Your task to perform on an android device: turn on improve location accuracy Image 0: 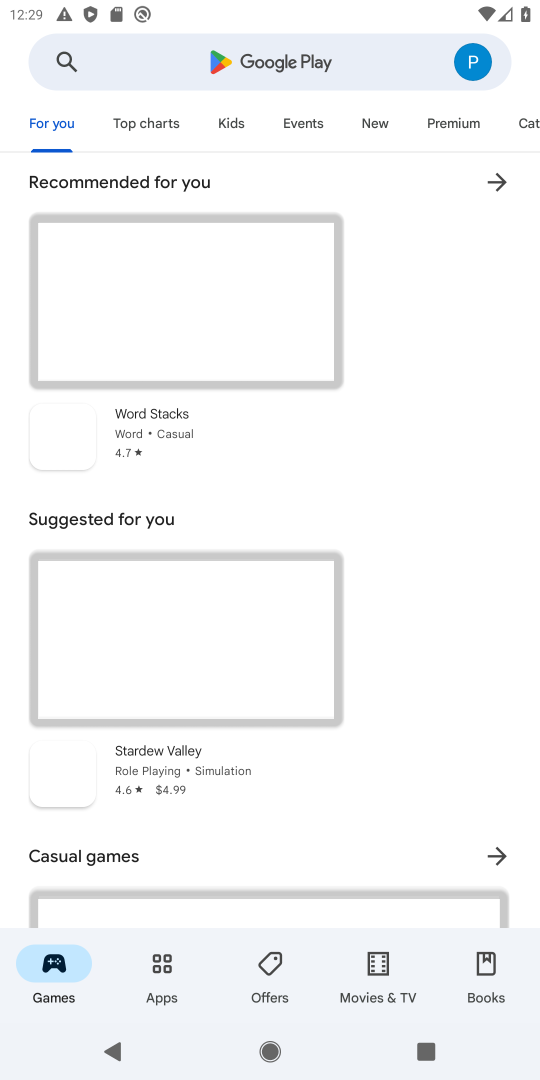
Step 0: press home button
Your task to perform on an android device: turn on improve location accuracy Image 1: 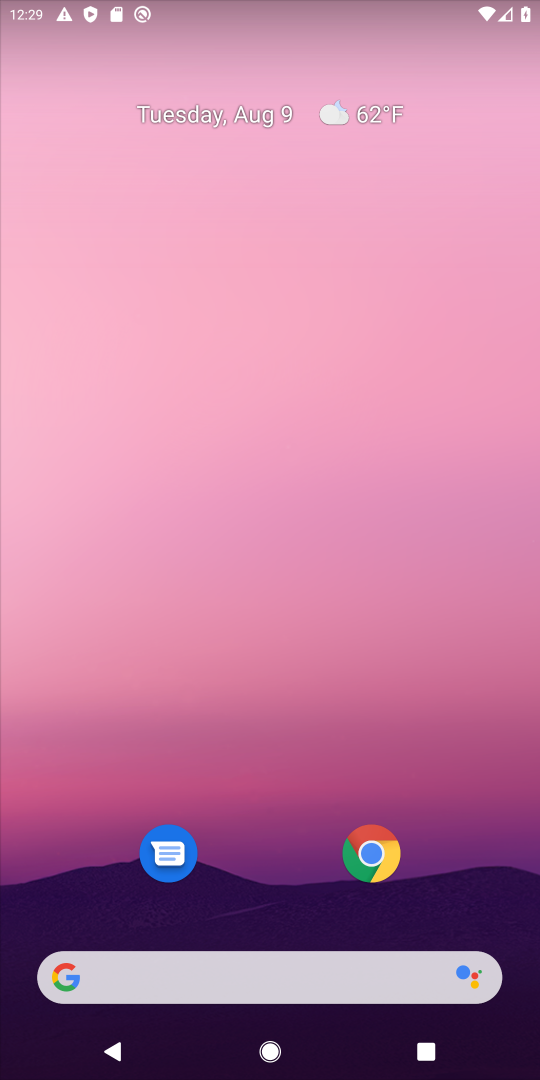
Step 1: press home button
Your task to perform on an android device: turn on improve location accuracy Image 2: 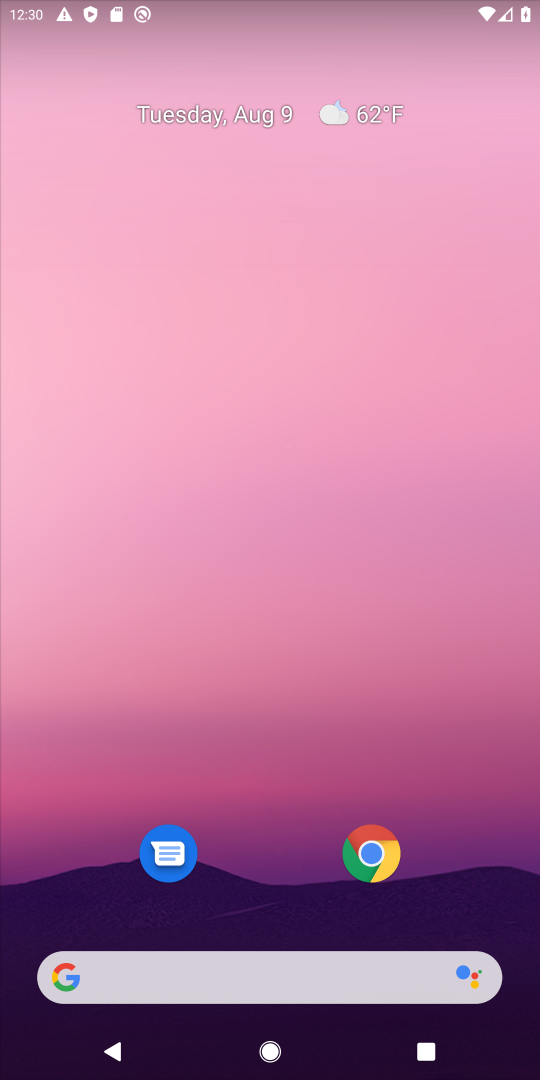
Step 2: drag from (273, 862) to (299, 25)
Your task to perform on an android device: turn on improve location accuracy Image 3: 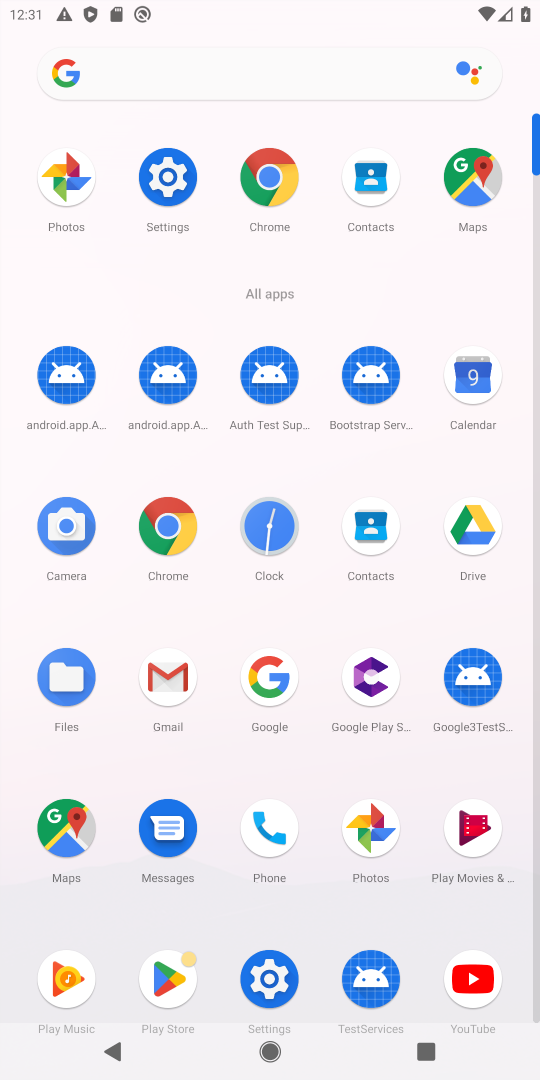
Step 3: click (174, 164)
Your task to perform on an android device: turn on improve location accuracy Image 4: 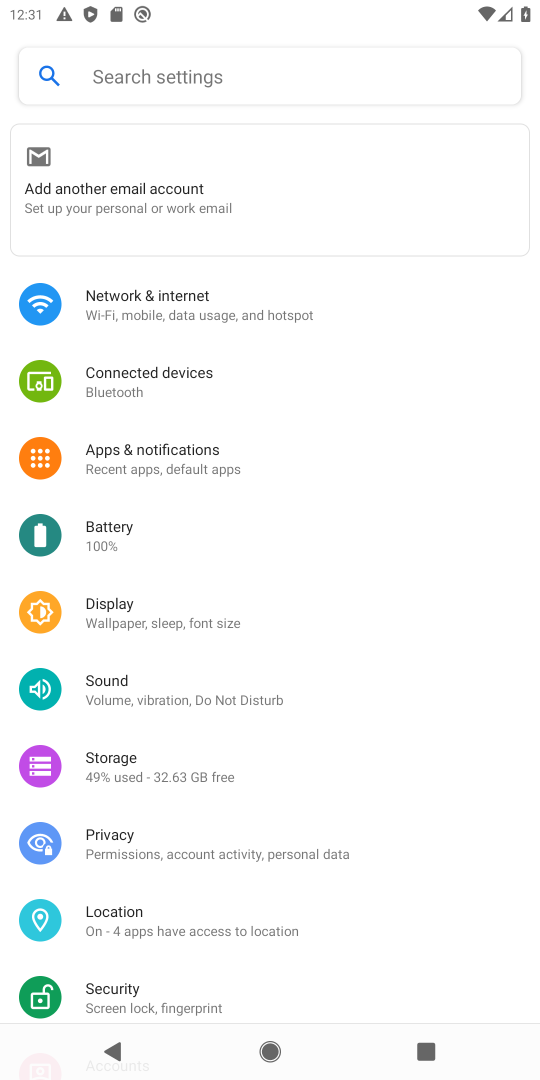
Step 4: click (228, 916)
Your task to perform on an android device: turn on improve location accuracy Image 5: 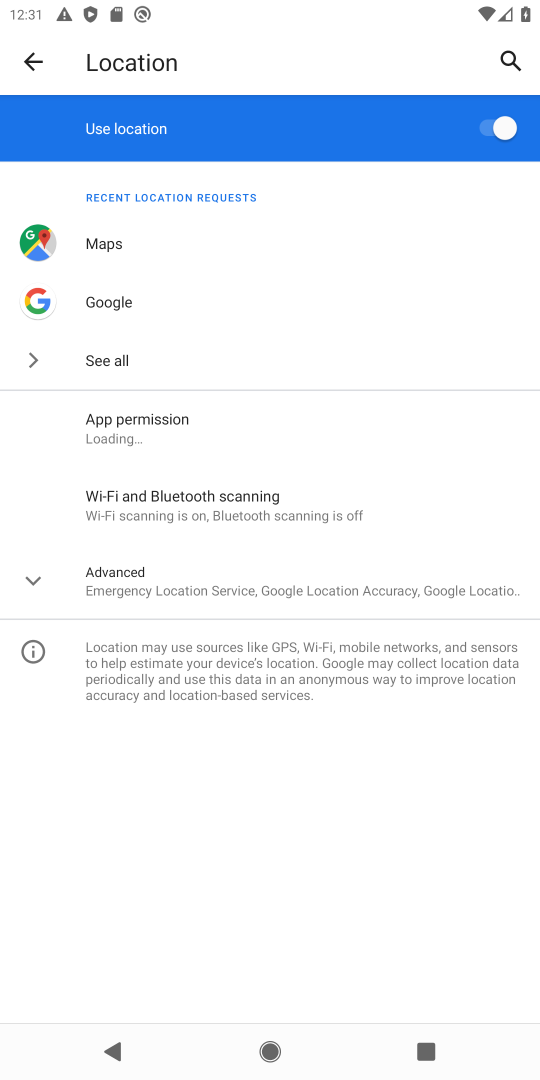
Step 5: click (43, 581)
Your task to perform on an android device: turn on improve location accuracy Image 6: 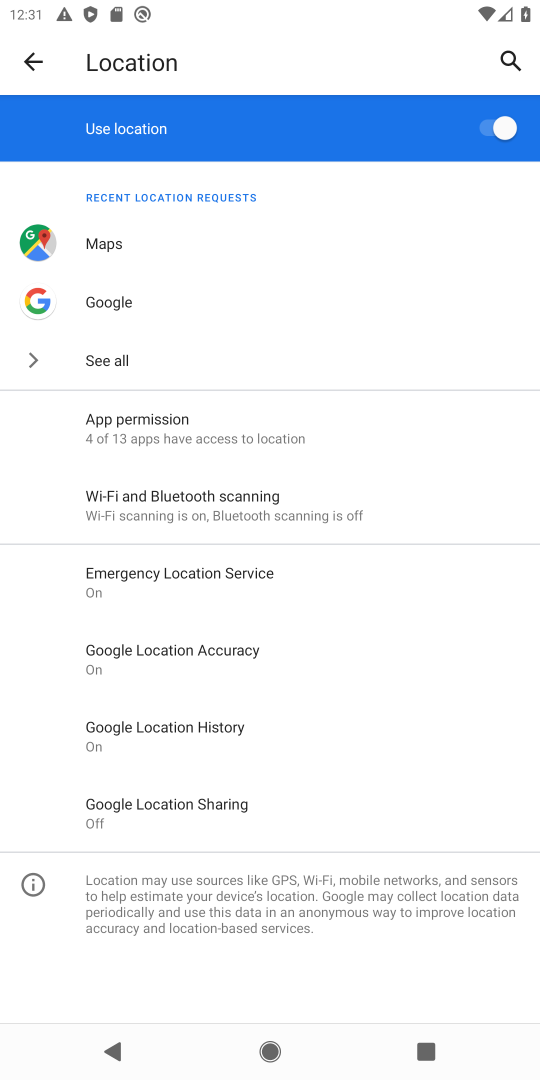
Step 6: click (209, 661)
Your task to perform on an android device: turn on improve location accuracy Image 7: 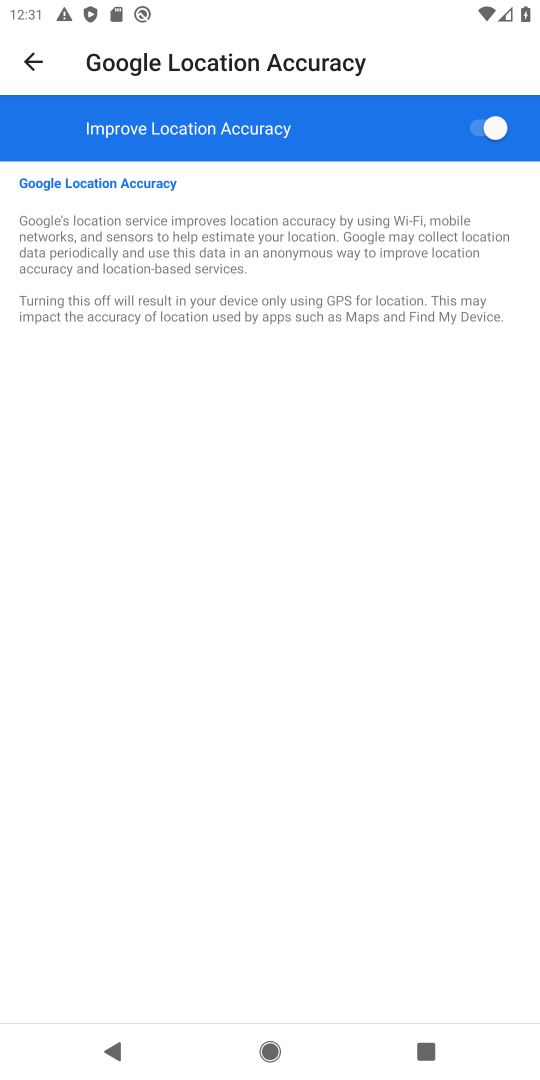
Step 7: task complete